Your task to perform on an android device: turn pop-ups on in chrome Image 0: 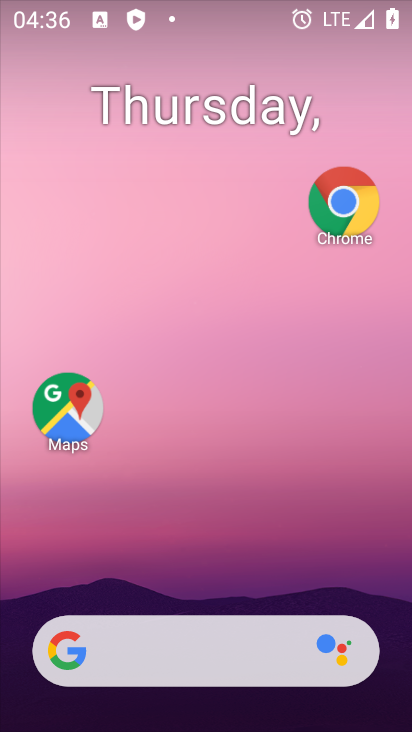
Step 0: drag from (220, 585) to (226, 23)
Your task to perform on an android device: turn pop-ups on in chrome Image 1: 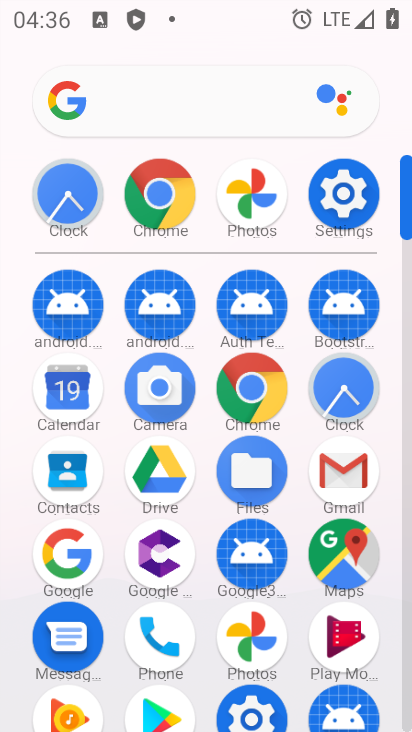
Step 1: click (246, 386)
Your task to perform on an android device: turn pop-ups on in chrome Image 2: 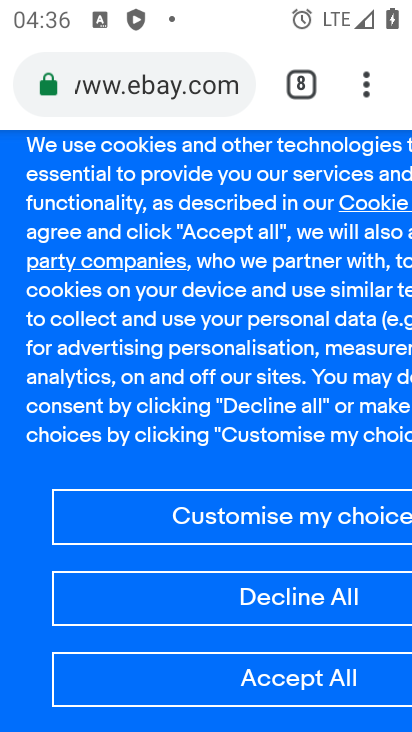
Step 2: click (366, 86)
Your task to perform on an android device: turn pop-ups on in chrome Image 3: 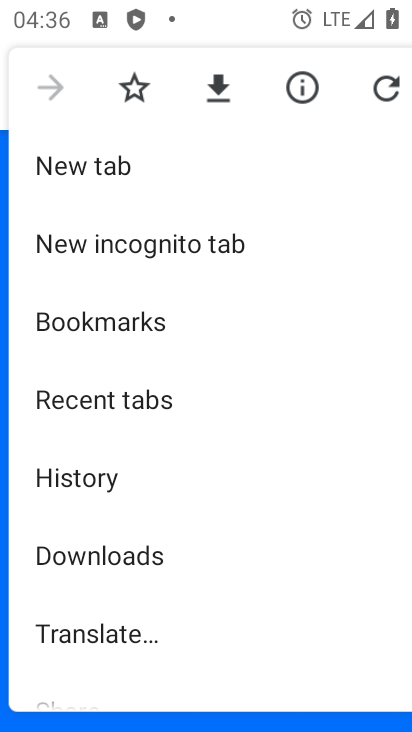
Step 3: drag from (285, 614) to (259, 124)
Your task to perform on an android device: turn pop-ups on in chrome Image 4: 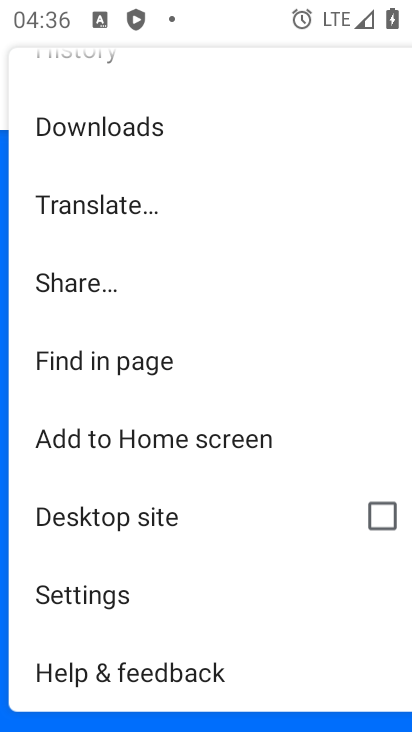
Step 4: click (132, 599)
Your task to perform on an android device: turn pop-ups on in chrome Image 5: 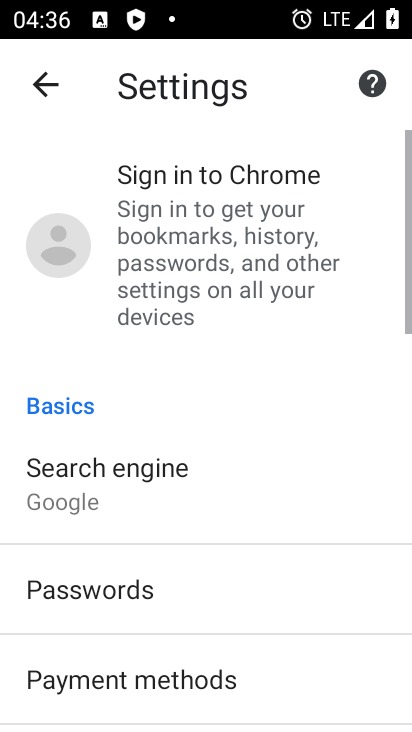
Step 5: drag from (233, 664) to (193, 90)
Your task to perform on an android device: turn pop-ups on in chrome Image 6: 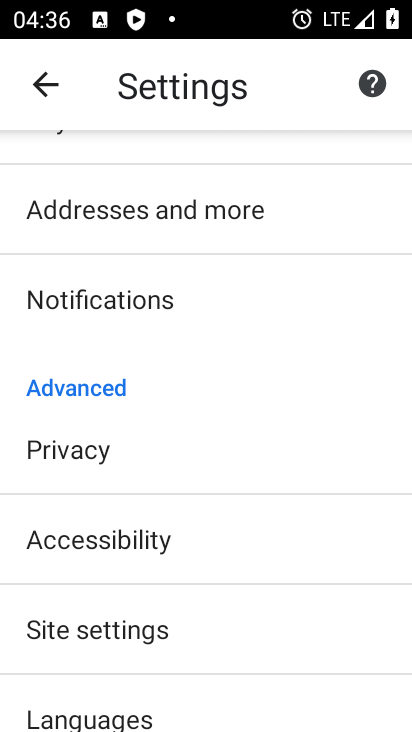
Step 6: drag from (259, 644) to (261, 406)
Your task to perform on an android device: turn pop-ups on in chrome Image 7: 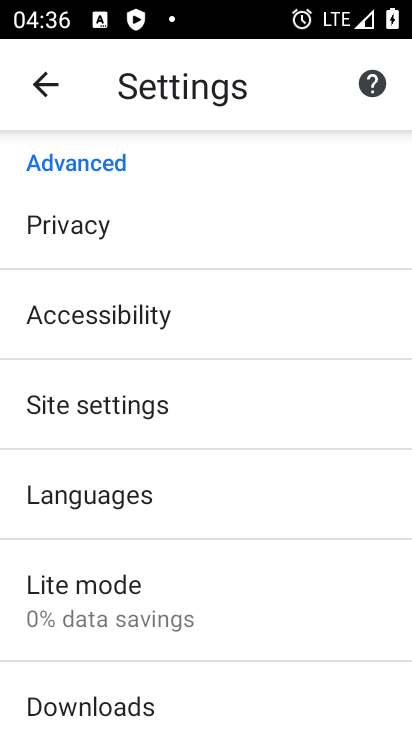
Step 7: click (151, 423)
Your task to perform on an android device: turn pop-ups on in chrome Image 8: 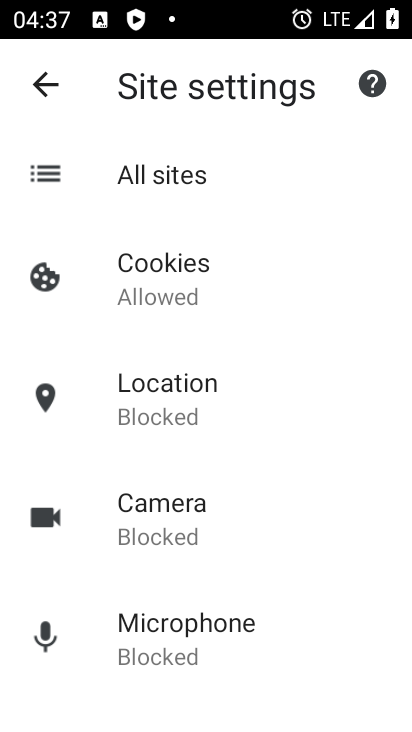
Step 8: drag from (221, 648) to (238, 181)
Your task to perform on an android device: turn pop-ups on in chrome Image 9: 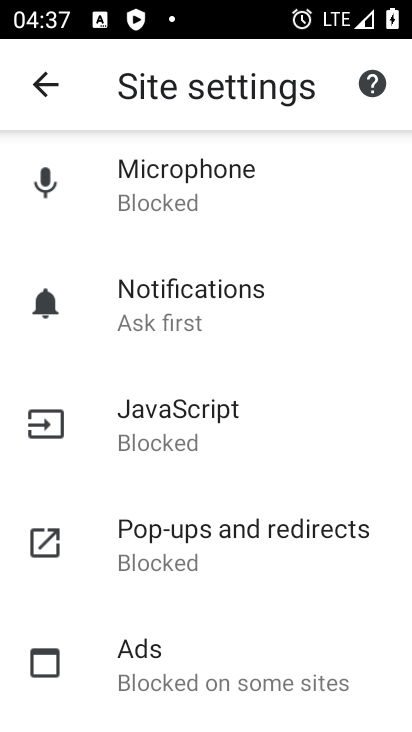
Step 9: click (189, 536)
Your task to perform on an android device: turn pop-ups on in chrome Image 10: 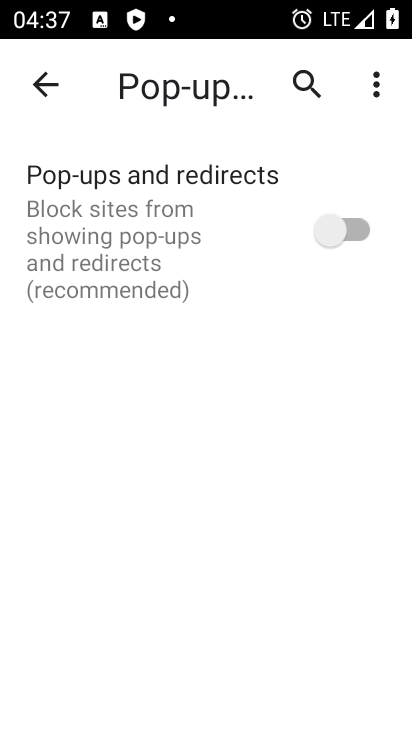
Step 10: click (350, 227)
Your task to perform on an android device: turn pop-ups on in chrome Image 11: 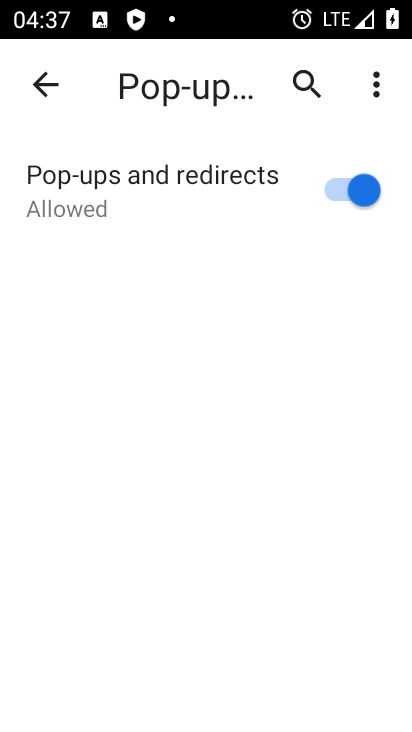
Step 11: task complete